Your task to perform on an android device: set an alarm Image 0: 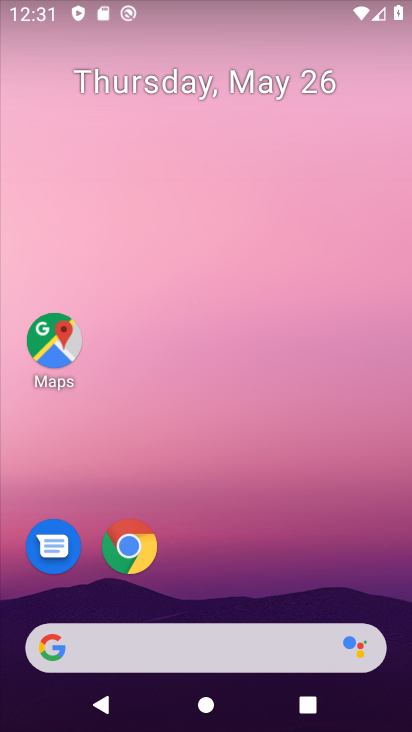
Step 0: drag from (398, 675) to (255, 31)
Your task to perform on an android device: set an alarm Image 1: 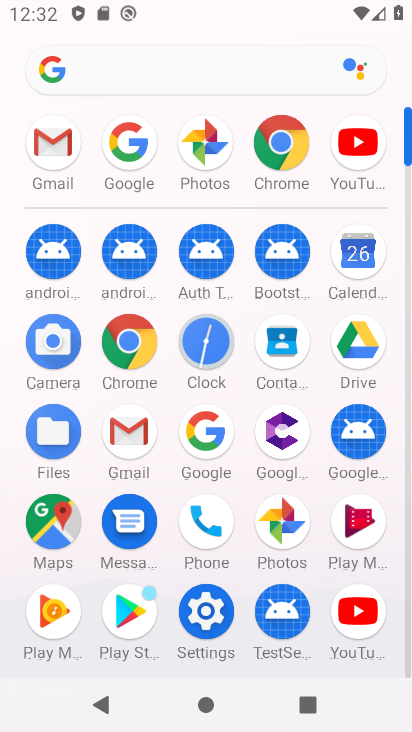
Step 1: click (202, 340)
Your task to perform on an android device: set an alarm Image 2: 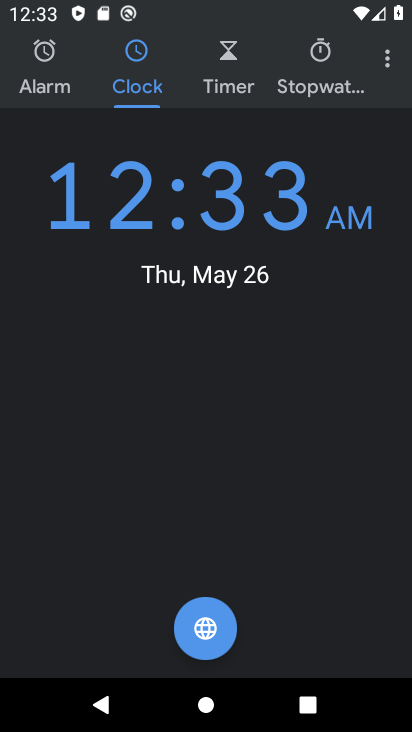
Step 2: click (35, 67)
Your task to perform on an android device: set an alarm Image 3: 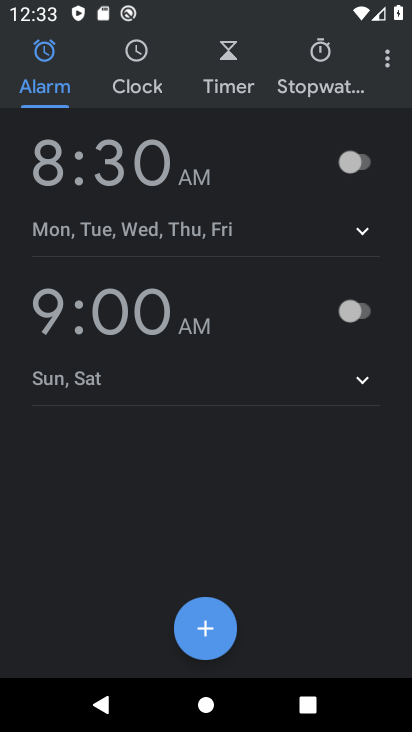
Step 3: click (366, 166)
Your task to perform on an android device: set an alarm Image 4: 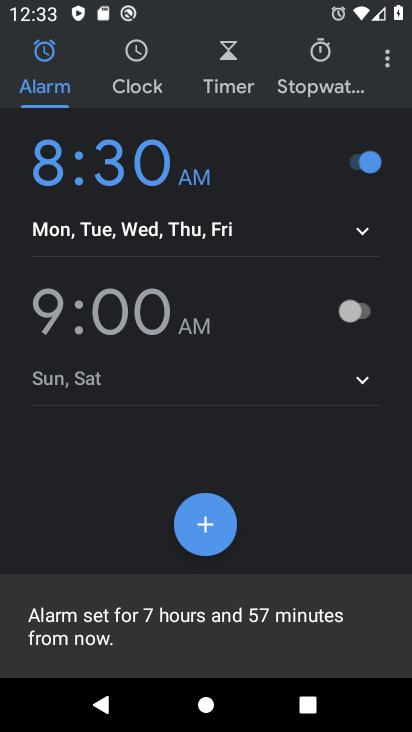
Step 4: task complete